Your task to perform on an android device: Open Google Image 0: 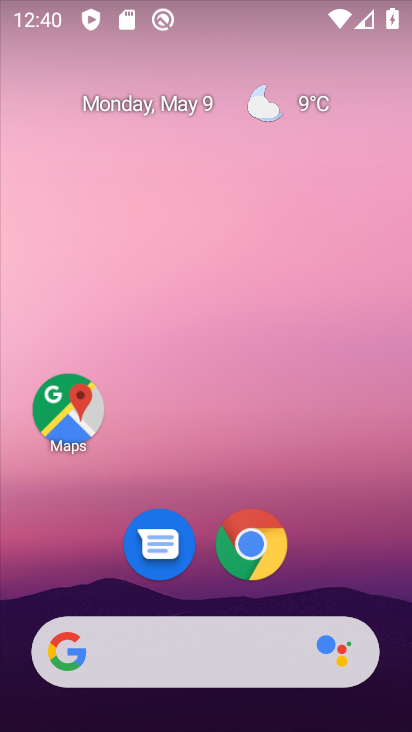
Step 0: drag from (347, 550) to (271, 101)
Your task to perform on an android device: Open Google Image 1: 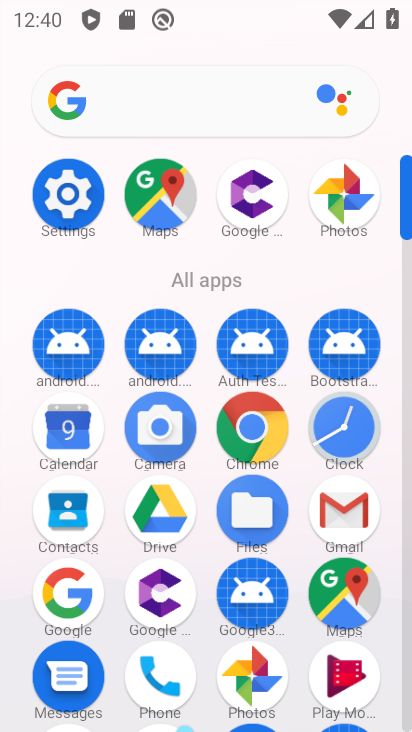
Step 1: click (71, 593)
Your task to perform on an android device: Open Google Image 2: 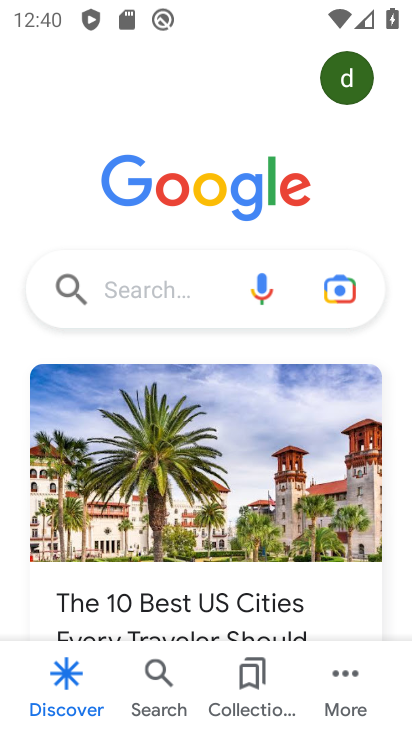
Step 2: task complete